Your task to perform on an android device: Open calendar and show me the first week of next month Image 0: 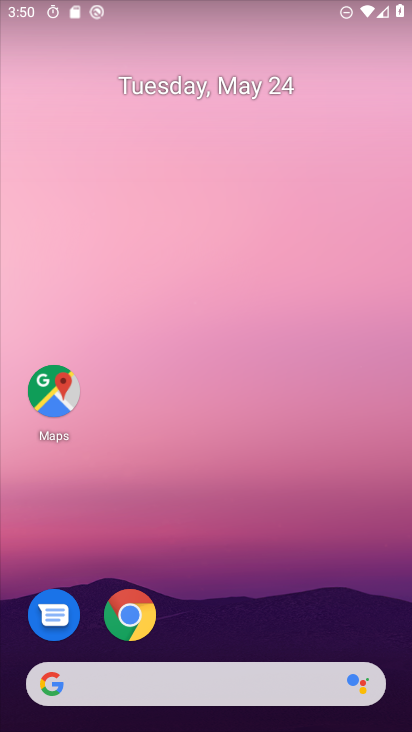
Step 0: drag from (230, 609) to (310, 133)
Your task to perform on an android device: Open calendar and show me the first week of next month Image 1: 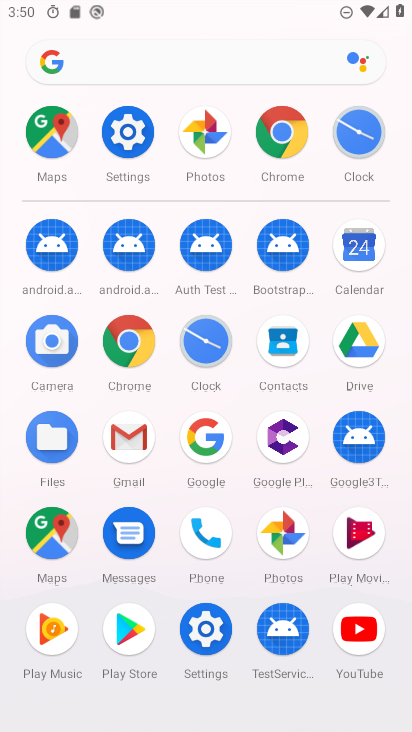
Step 1: click (359, 243)
Your task to perform on an android device: Open calendar and show me the first week of next month Image 2: 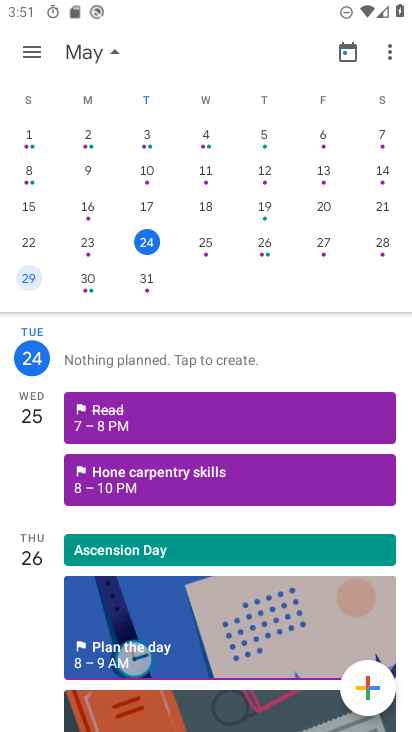
Step 2: drag from (319, 241) to (5, 185)
Your task to perform on an android device: Open calendar and show me the first week of next month Image 3: 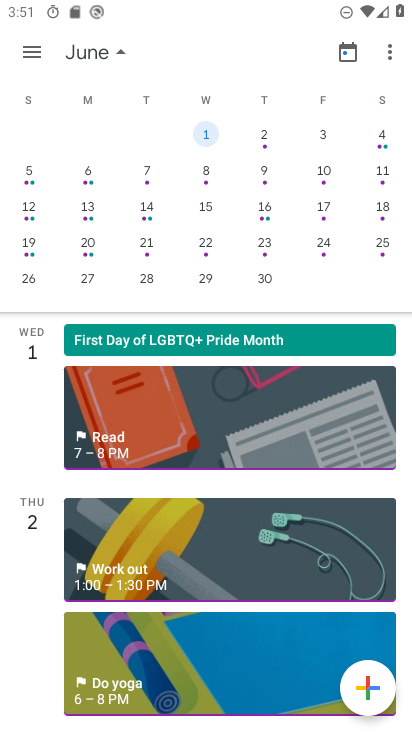
Step 3: drag from (256, 221) to (215, 227)
Your task to perform on an android device: Open calendar and show me the first week of next month Image 4: 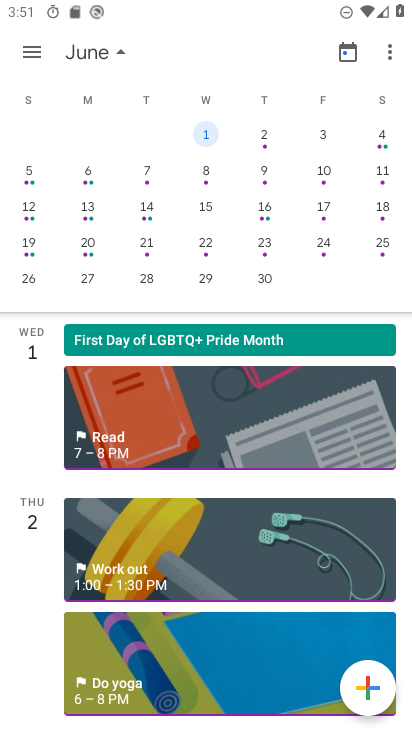
Step 4: click (207, 126)
Your task to perform on an android device: Open calendar and show me the first week of next month Image 5: 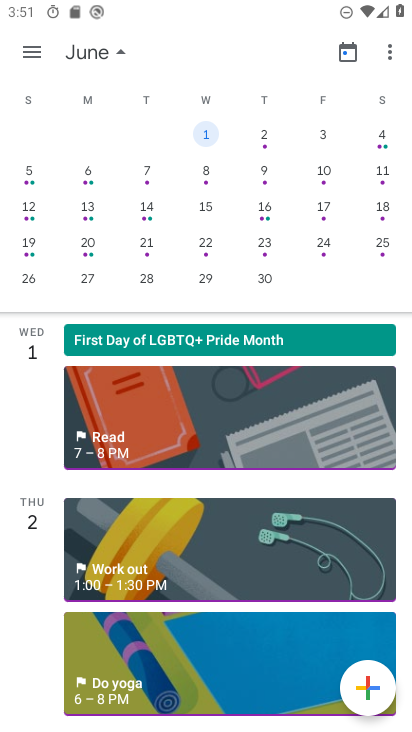
Step 5: click (210, 142)
Your task to perform on an android device: Open calendar and show me the first week of next month Image 6: 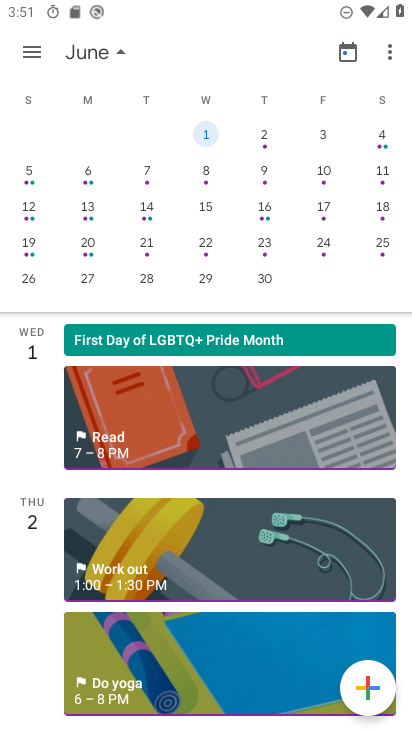
Step 6: task complete